Your task to perform on an android device: Show me the alarms in the clock app Image 0: 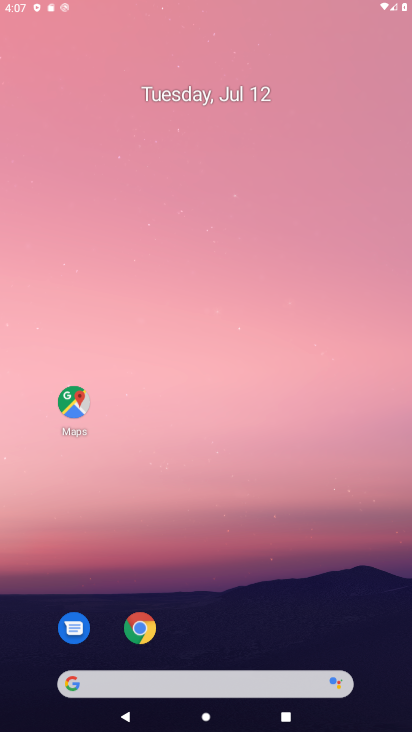
Step 0: press home button
Your task to perform on an android device: Show me the alarms in the clock app Image 1: 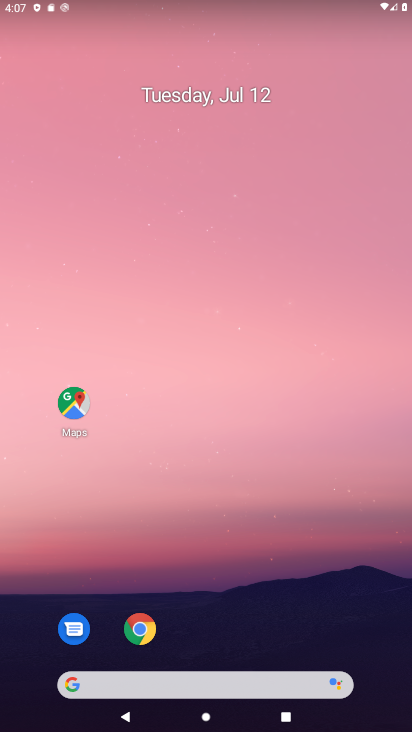
Step 1: drag from (210, 655) to (241, 127)
Your task to perform on an android device: Show me the alarms in the clock app Image 2: 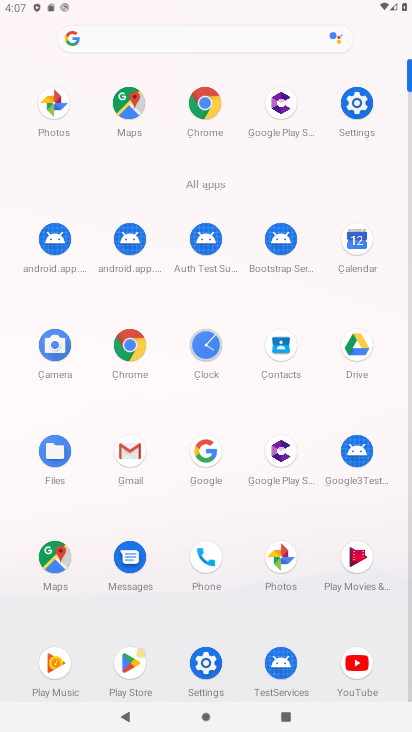
Step 2: click (205, 349)
Your task to perform on an android device: Show me the alarms in the clock app Image 3: 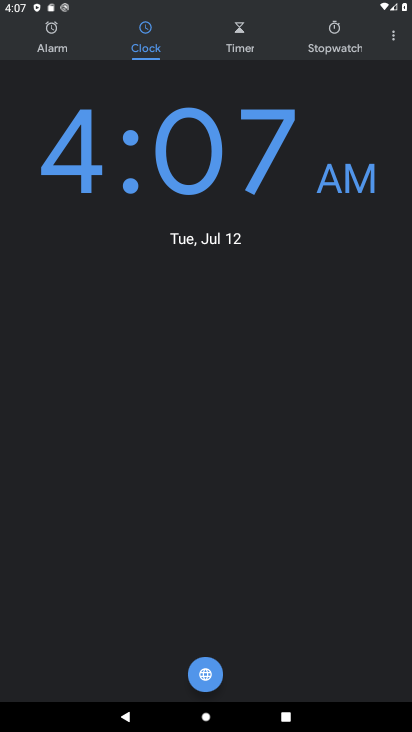
Step 3: click (50, 37)
Your task to perform on an android device: Show me the alarms in the clock app Image 4: 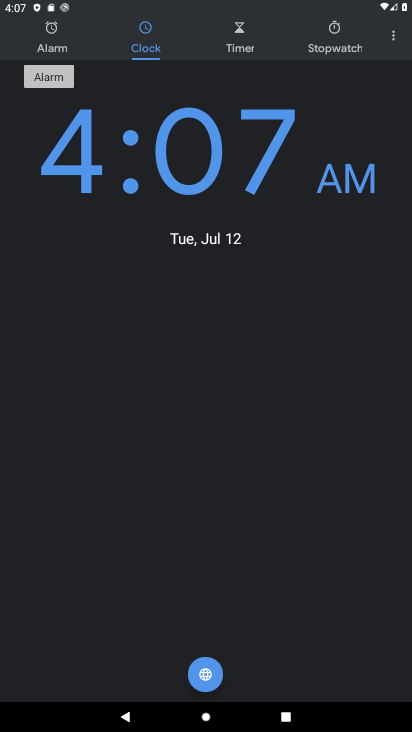
Step 4: click (50, 37)
Your task to perform on an android device: Show me the alarms in the clock app Image 5: 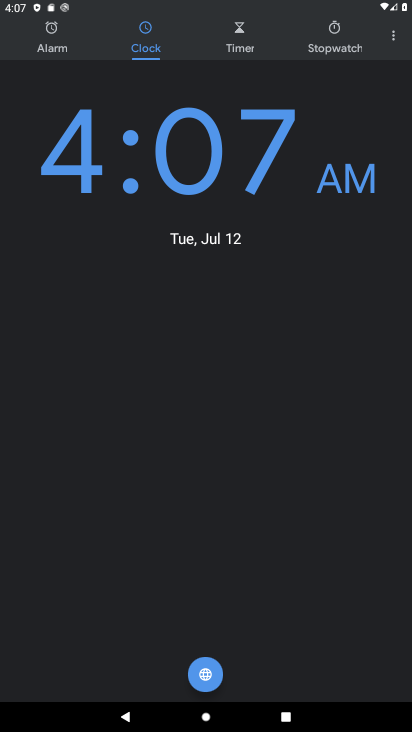
Step 5: task complete